Your task to perform on an android device: Open calendar and show me the fourth week of next month Image 0: 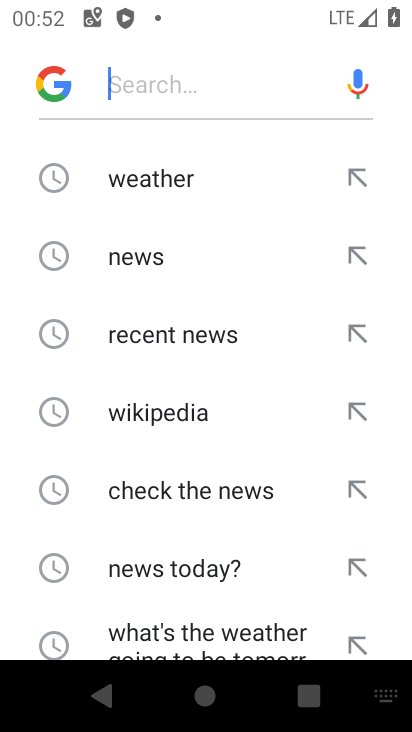
Step 0: press home button
Your task to perform on an android device: Open calendar and show me the fourth week of next month Image 1: 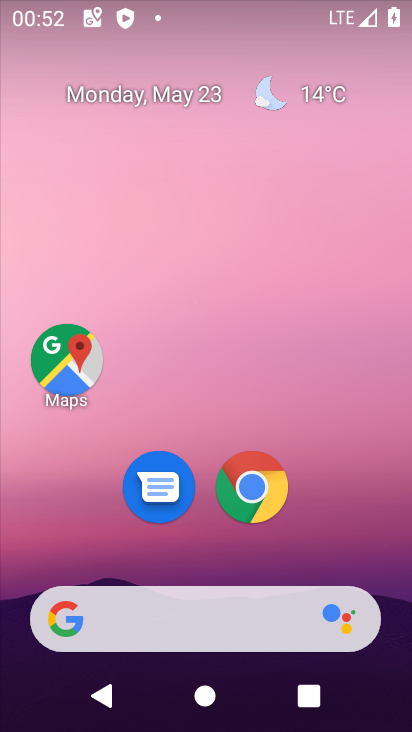
Step 1: drag from (401, 613) to (368, 3)
Your task to perform on an android device: Open calendar and show me the fourth week of next month Image 2: 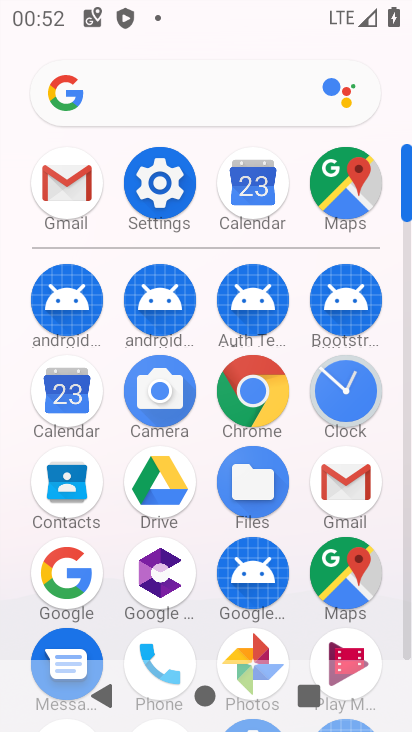
Step 2: click (407, 647)
Your task to perform on an android device: Open calendar and show me the fourth week of next month Image 3: 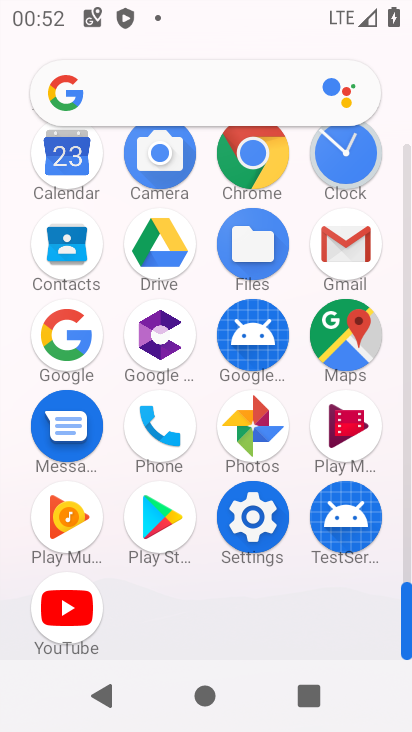
Step 3: click (67, 152)
Your task to perform on an android device: Open calendar and show me the fourth week of next month Image 4: 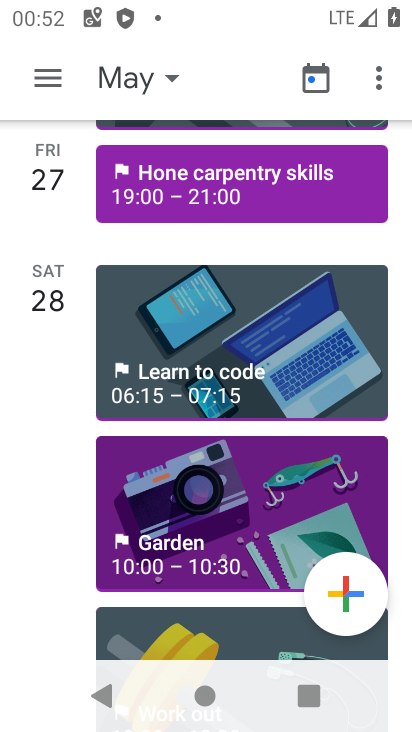
Step 4: click (167, 75)
Your task to perform on an android device: Open calendar and show me the fourth week of next month Image 5: 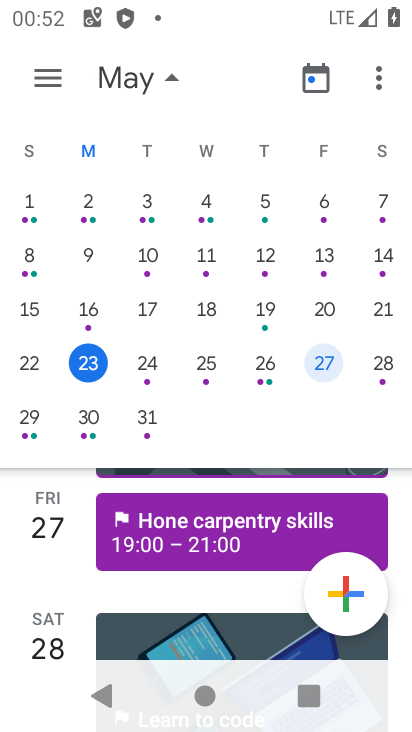
Step 5: drag from (382, 303) to (5, 278)
Your task to perform on an android device: Open calendar and show me the fourth week of next month Image 6: 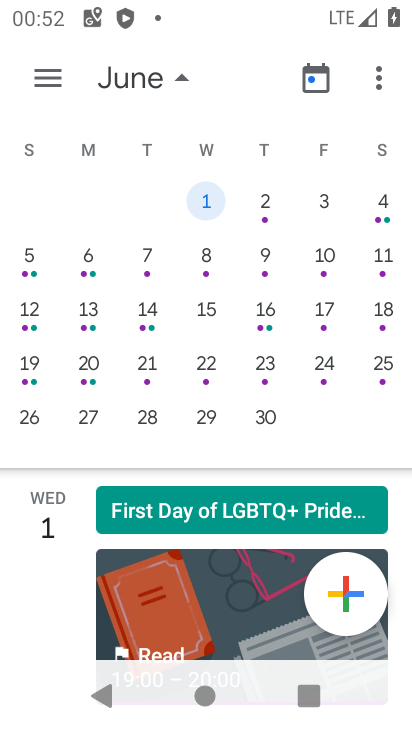
Step 6: click (22, 360)
Your task to perform on an android device: Open calendar and show me the fourth week of next month Image 7: 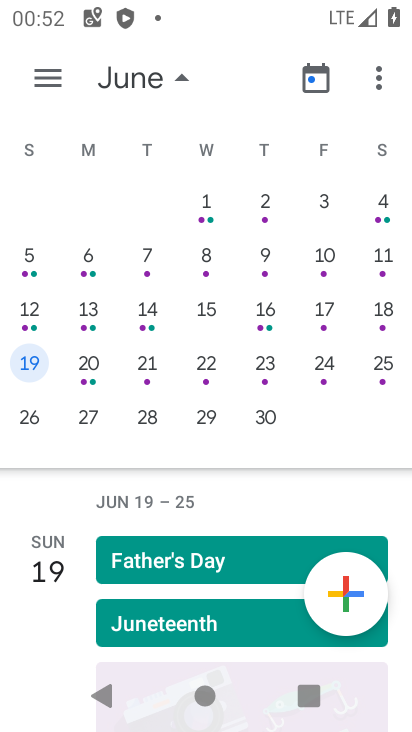
Step 7: task complete